Your task to perform on an android device: Go to wifi settings Image 0: 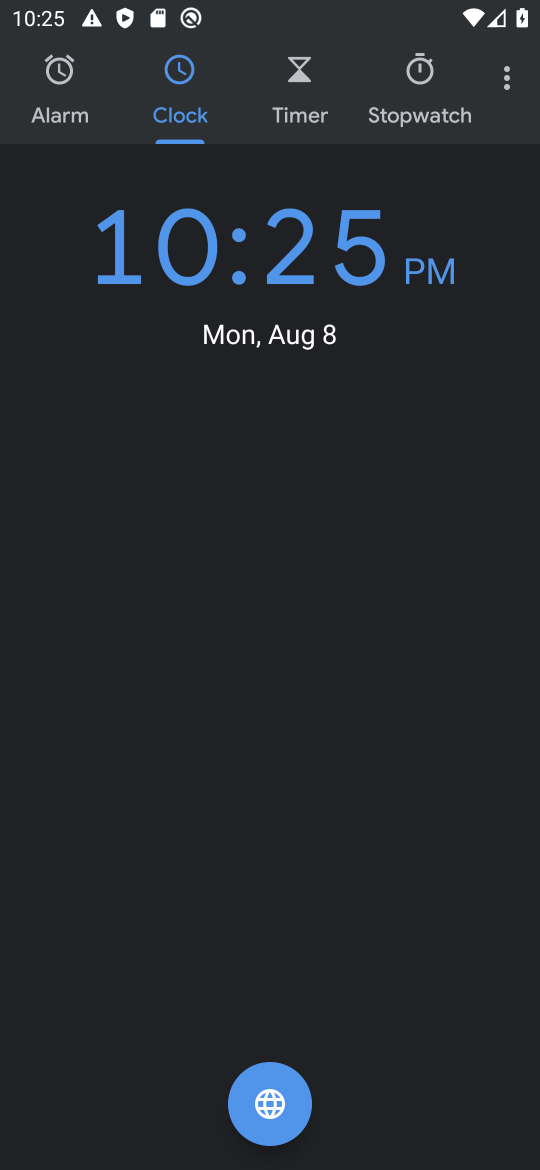
Step 0: press home button
Your task to perform on an android device: Go to wifi settings Image 1: 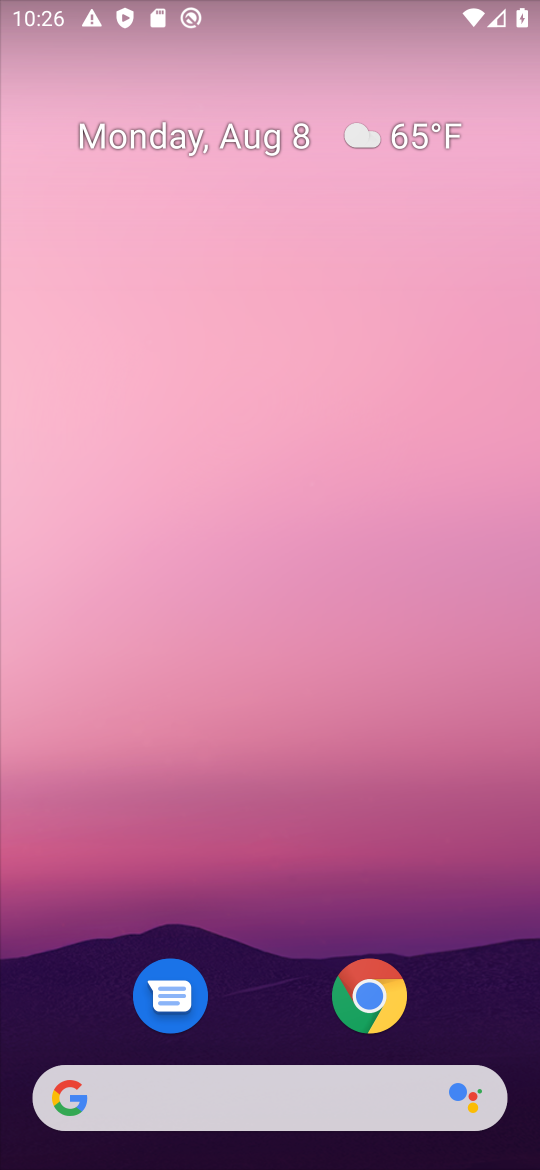
Step 1: drag from (303, 951) to (363, 448)
Your task to perform on an android device: Go to wifi settings Image 2: 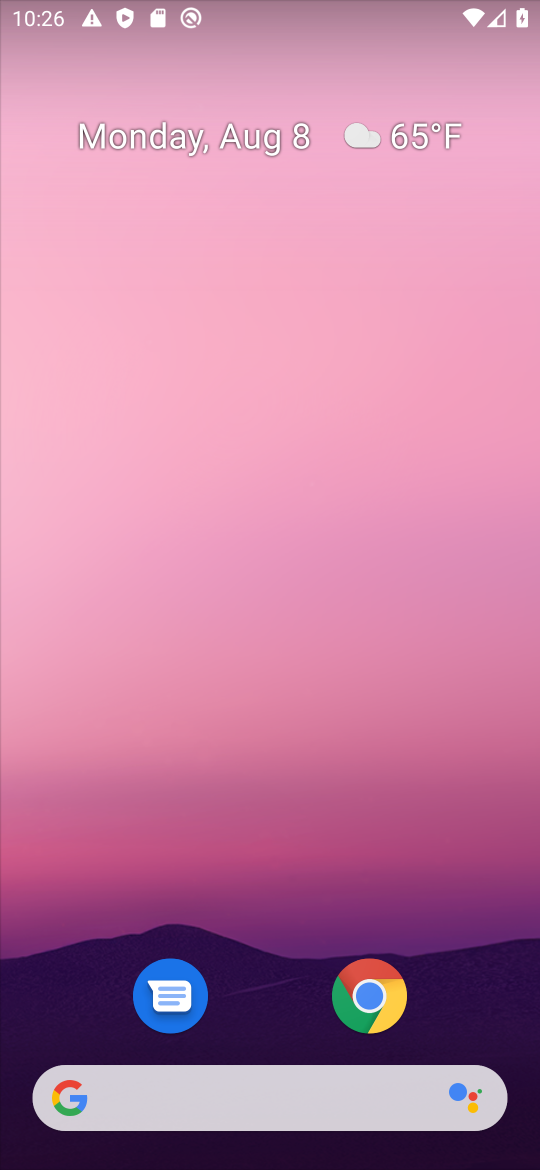
Step 2: drag from (299, 998) to (323, 264)
Your task to perform on an android device: Go to wifi settings Image 3: 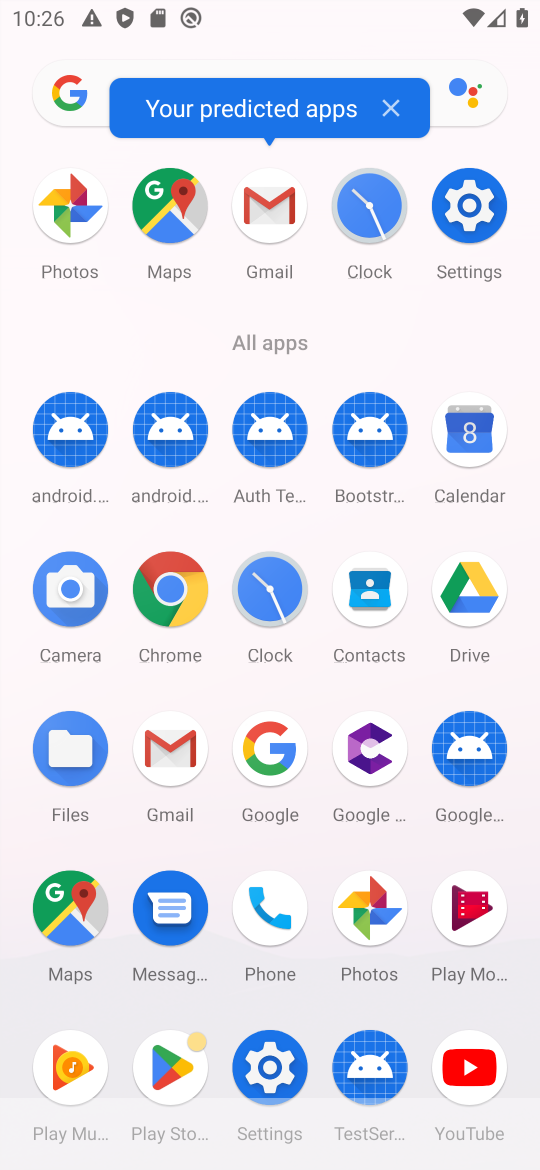
Step 3: click (460, 216)
Your task to perform on an android device: Go to wifi settings Image 4: 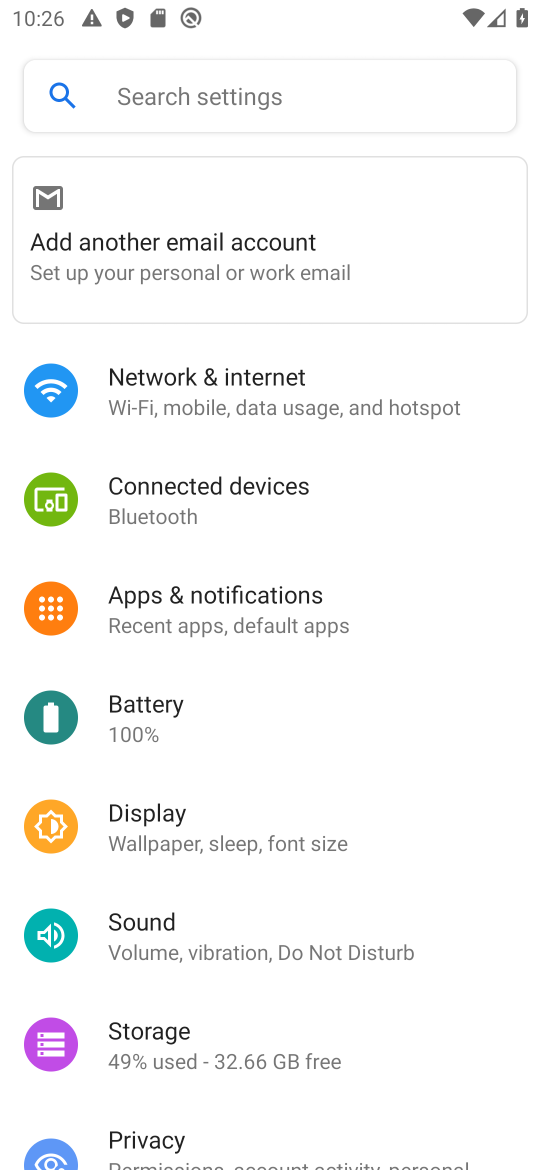
Step 4: click (176, 405)
Your task to perform on an android device: Go to wifi settings Image 5: 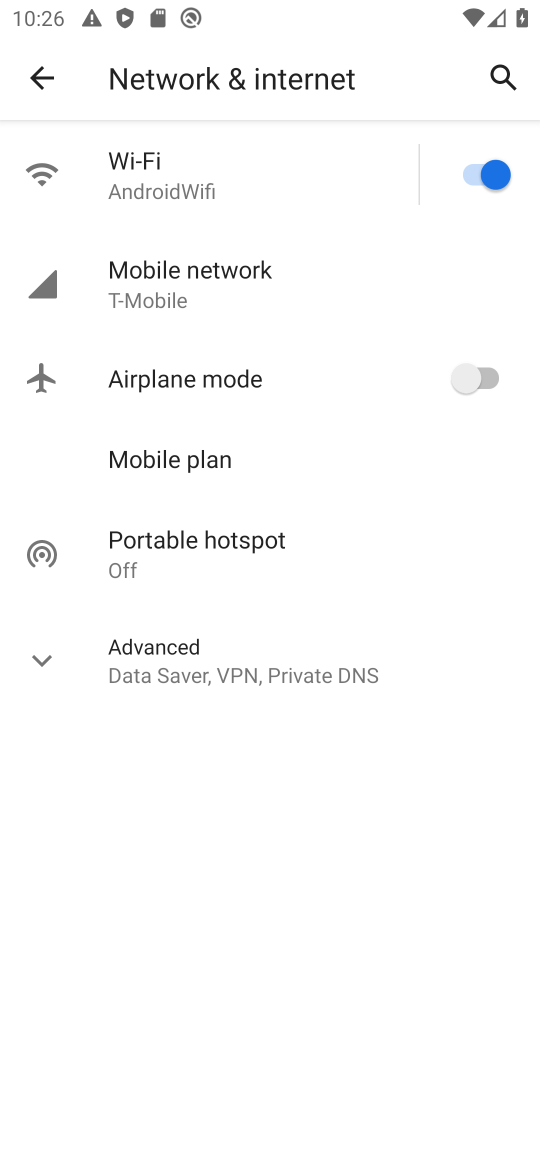
Step 5: click (142, 184)
Your task to perform on an android device: Go to wifi settings Image 6: 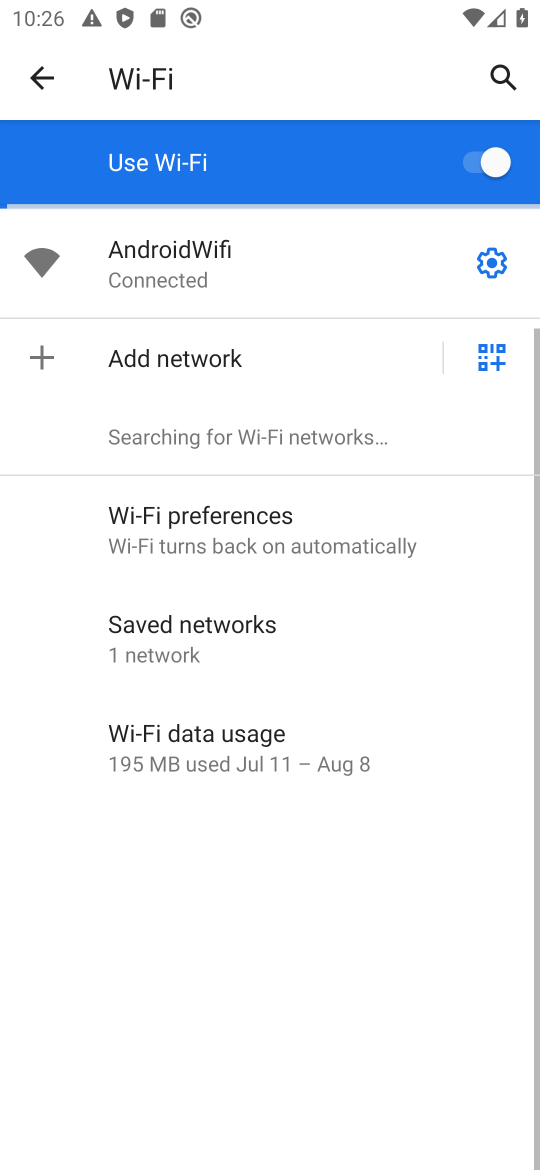
Step 6: click (169, 268)
Your task to perform on an android device: Go to wifi settings Image 7: 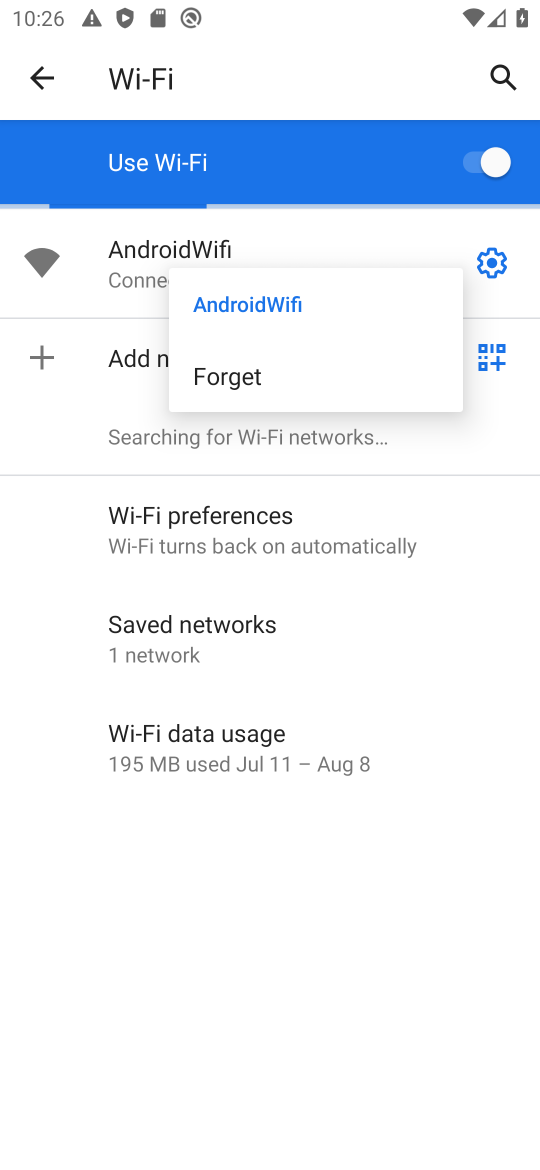
Step 7: click (169, 268)
Your task to perform on an android device: Go to wifi settings Image 8: 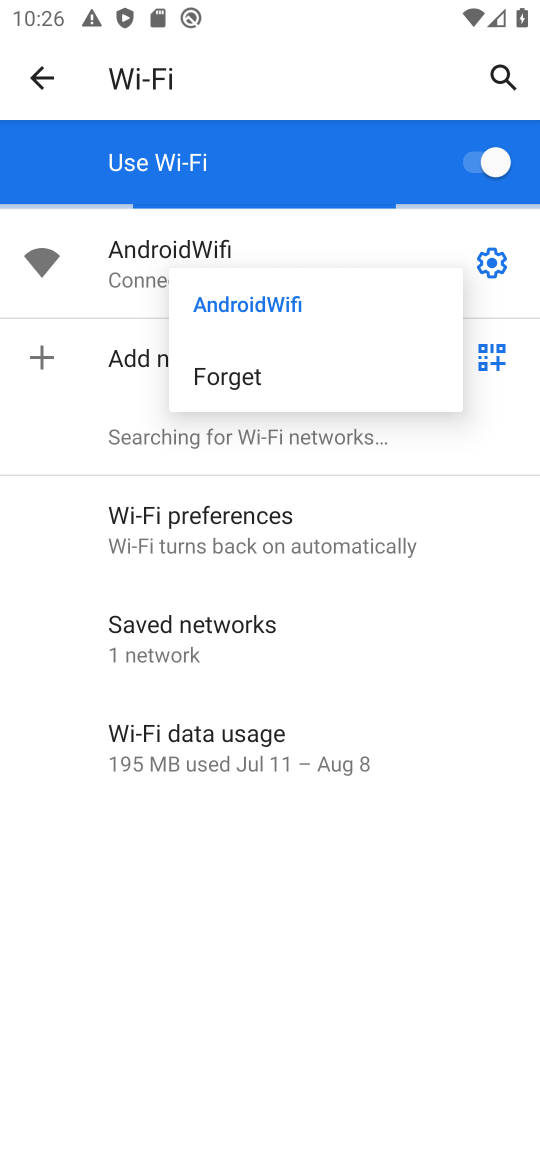
Step 8: click (489, 270)
Your task to perform on an android device: Go to wifi settings Image 9: 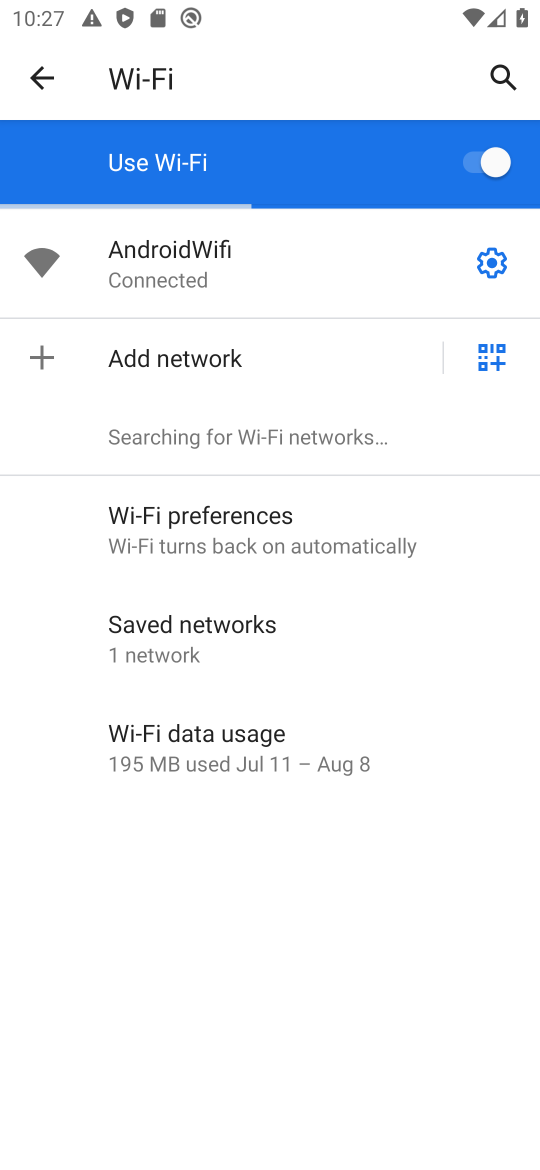
Step 9: click (157, 273)
Your task to perform on an android device: Go to wifi settings Image 10: 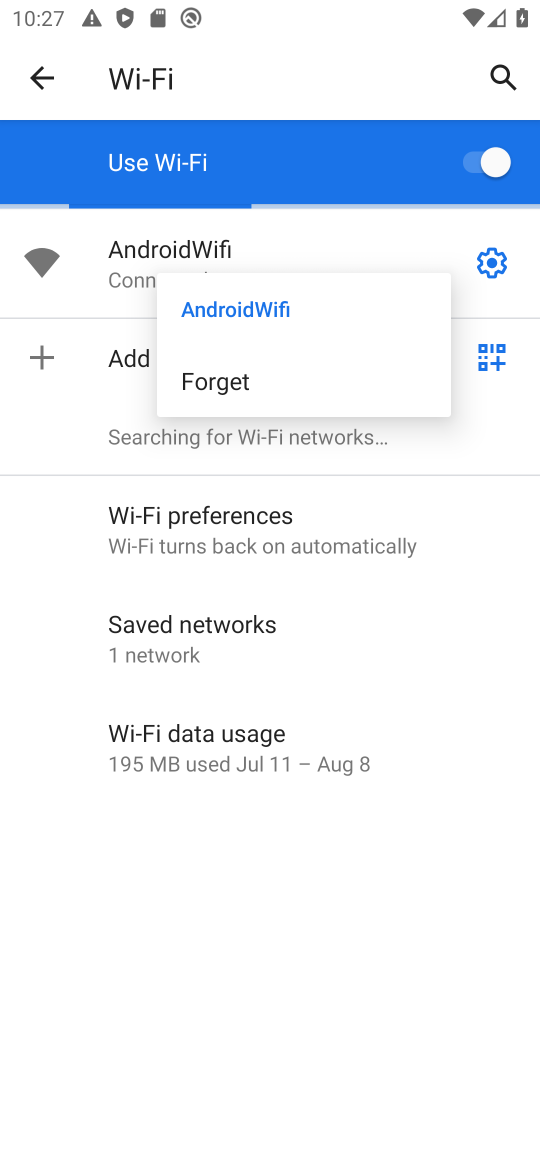
Step 10: click (205, 315)
Your task to perform on an android device: Go to wifi settings Image 11: 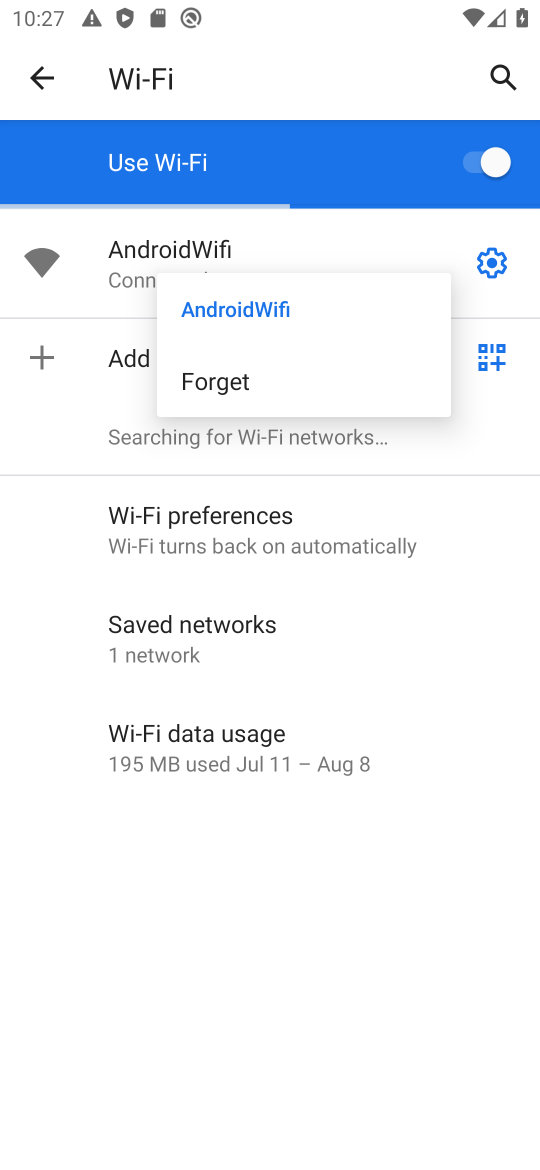
Step 11: click (136, 237)
Your task to perform on an android device: Go to wifi settings Image 12: 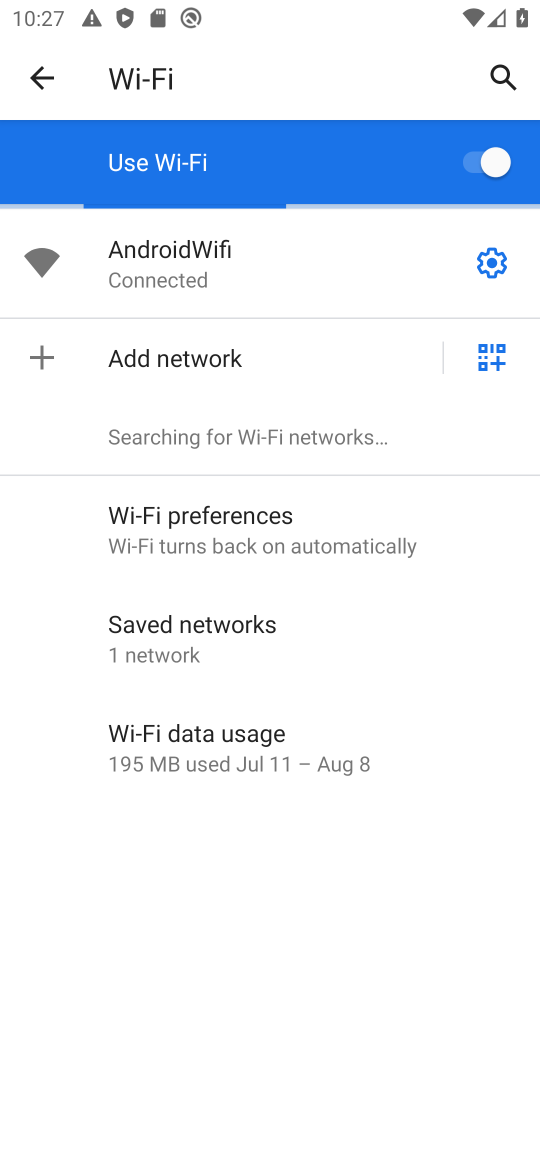
Step 12: click (489, 269)
Your task to perform on an android device: Go to wifi settings Image 13: 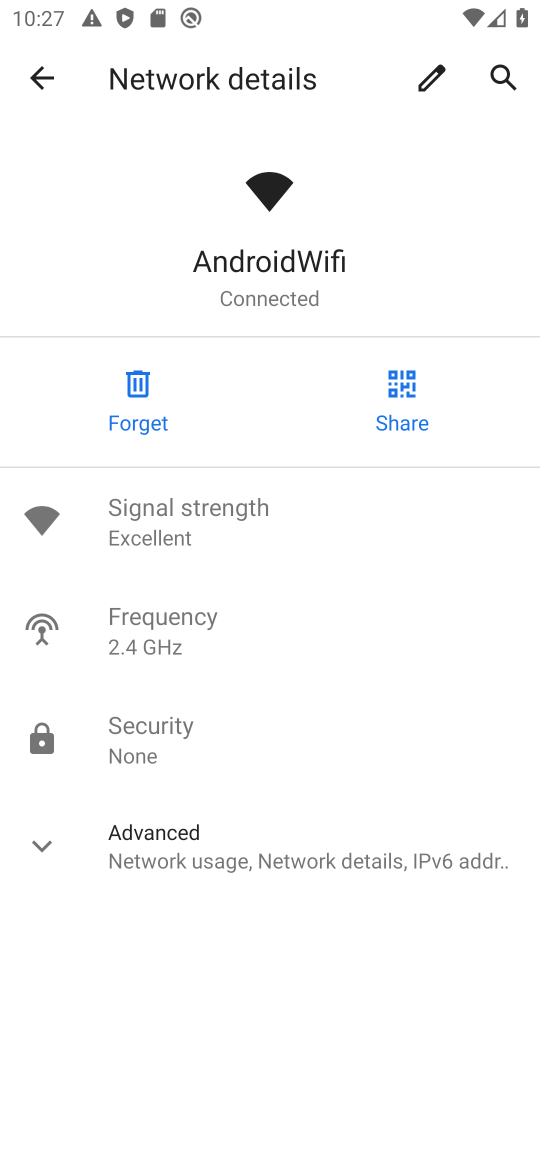
Step 13: task complete